Your task to perform on an android device: Open notification settings Image 0: 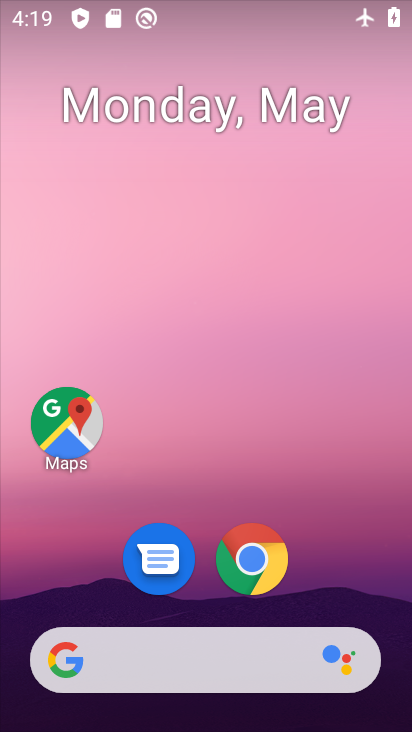
Step 0: drag from (383, 575) to (217, 45)
Your task to perform on an android device: Open notification settings Image 1: 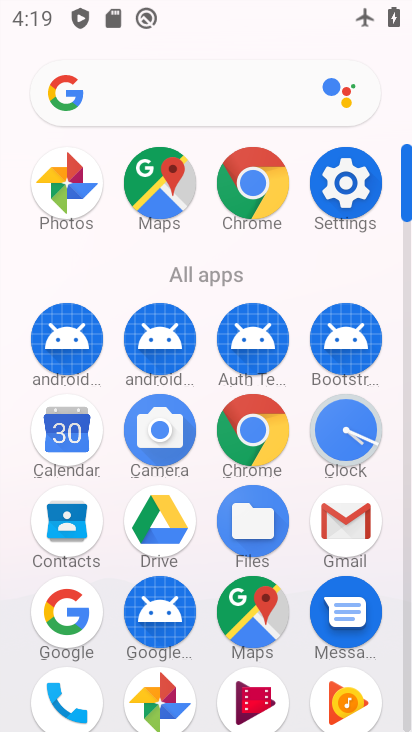
Step 1: drag from (16, 640) to (18, 261)
Your task to perform on an android device: Open notification settings Image 2: 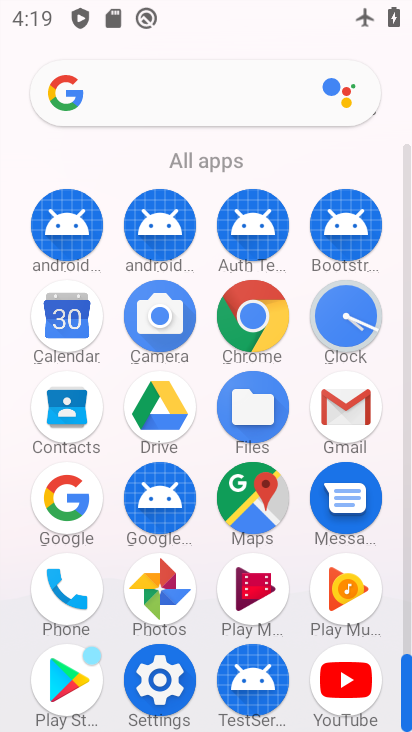
Step 2: click (155, 675)
Your task to perform on an android device: Open notification settings Image 3: 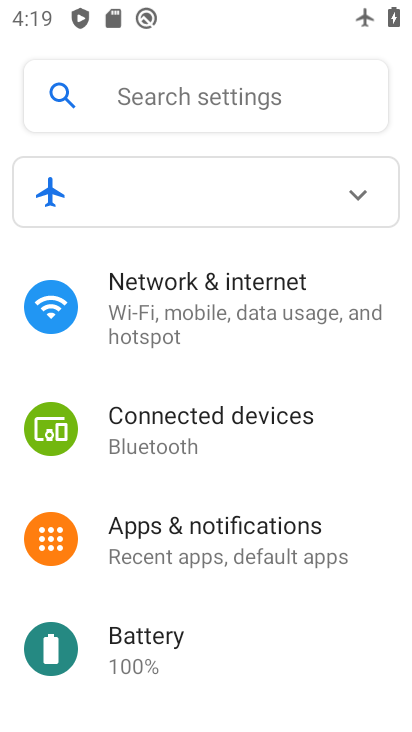
Step 3: click (229, 544)
Your task to perform on an android device: Open notification settings Image 4: 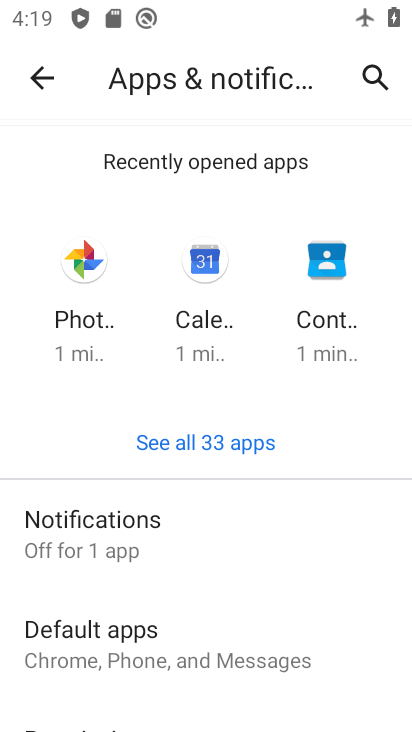
Step 4: click (185, 523)
Your task to perform on an android device: Open notification settings Image 5: 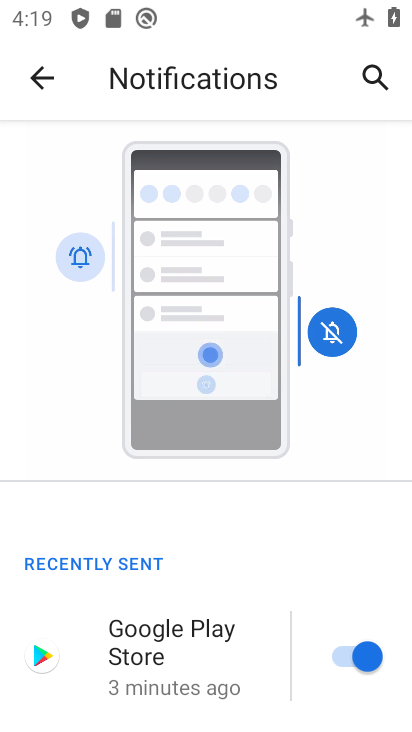
Step 5: drag from (210, 550) to (232, 133)
Your task to perform on an android device: Open notification settings Image 6: 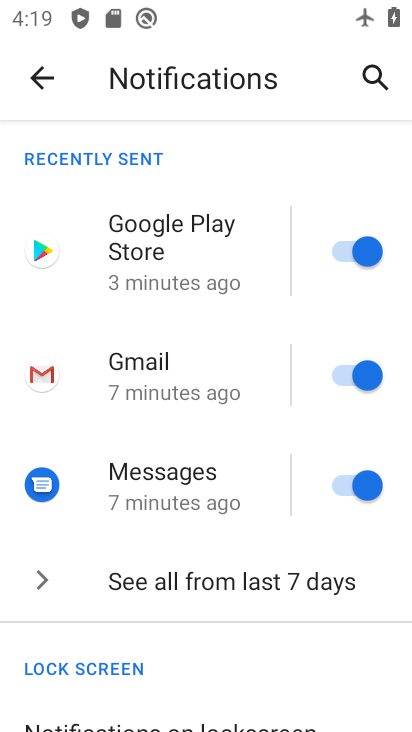
Step 6: drag from (215, 554) to (222, 201)
Your task to perform on an android device: Open notification settings Image 7: 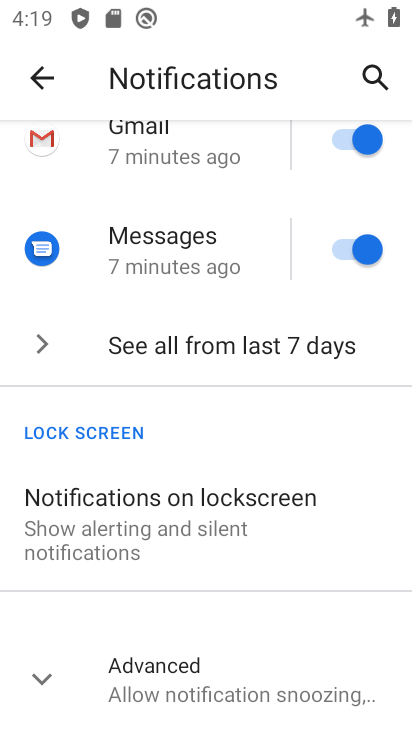
Step 7: click (66, 672)
Your task to perform on an android device: Open notification settings Image 8: 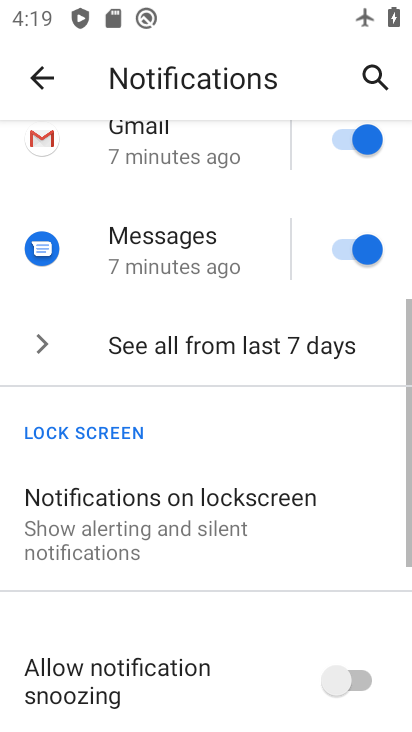
Step 8: task complete